Your task to perform on an android device: all mails in gmail Image 0: 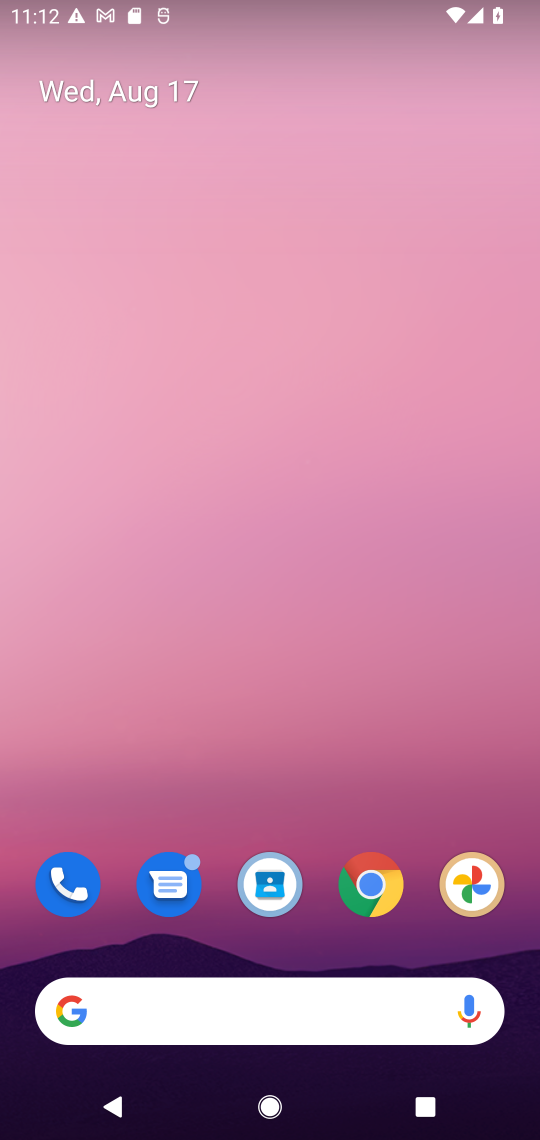
Step 0: press home button
Your task to perform on an android device: all mails in gmail Image 1: 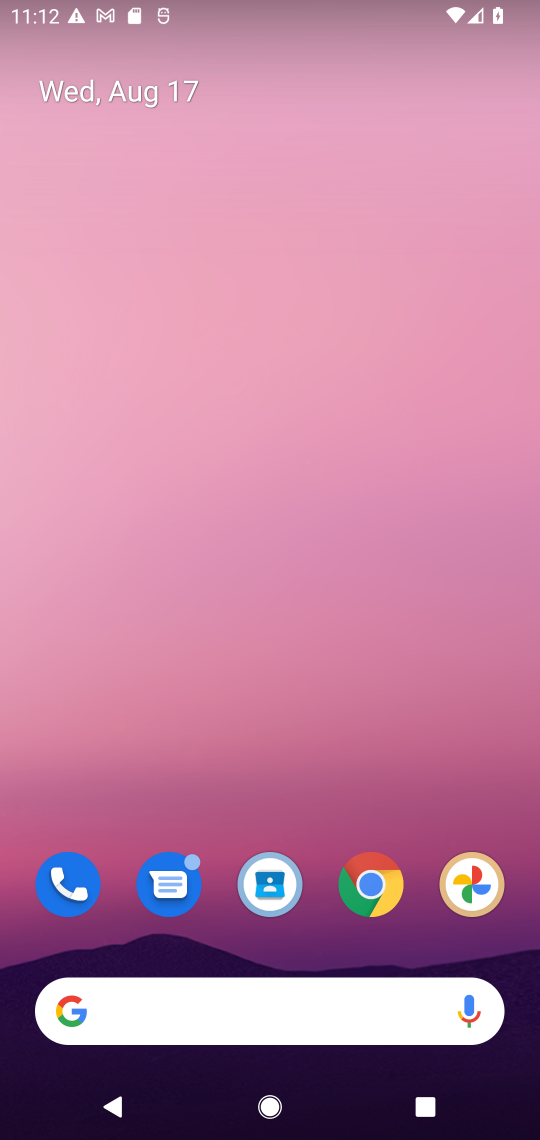
Step 1: drag from (362, 951) to (297, 5)
Your task to perform on an android device: all mails in gmail Image 2: 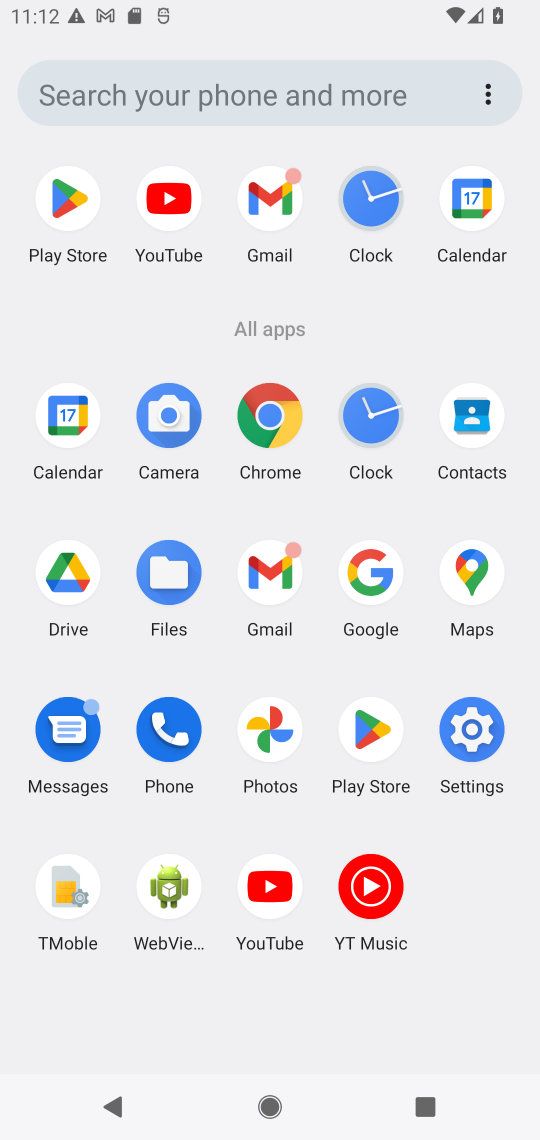
Step 2: click (269, 208)
Your task to perform on an android device: all mails in gmail Image 3: 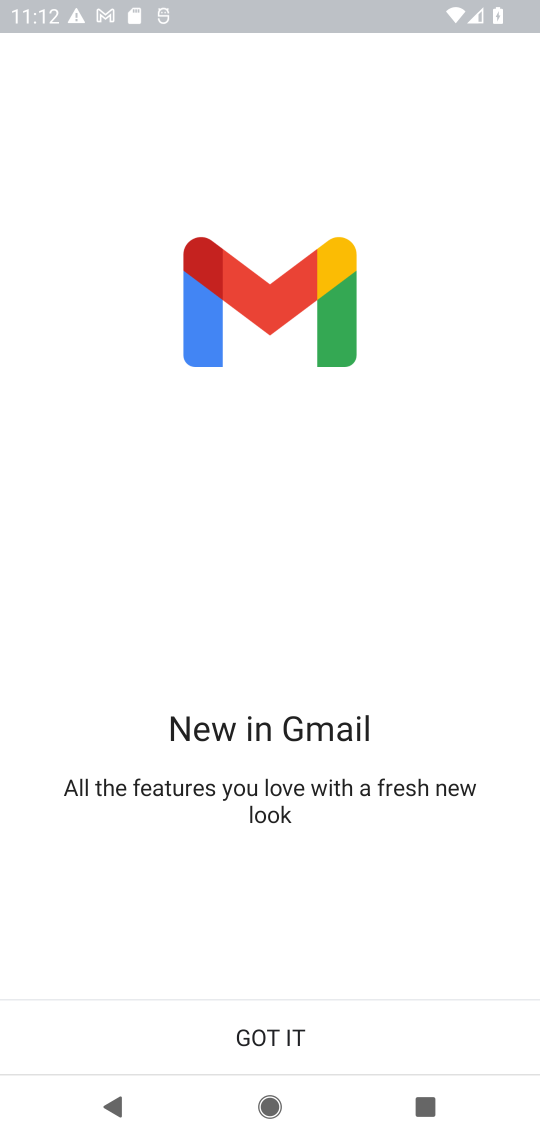
Step 3: click (253, 1043)
Your task to perform on an android device: all mails in gmail Image 4: 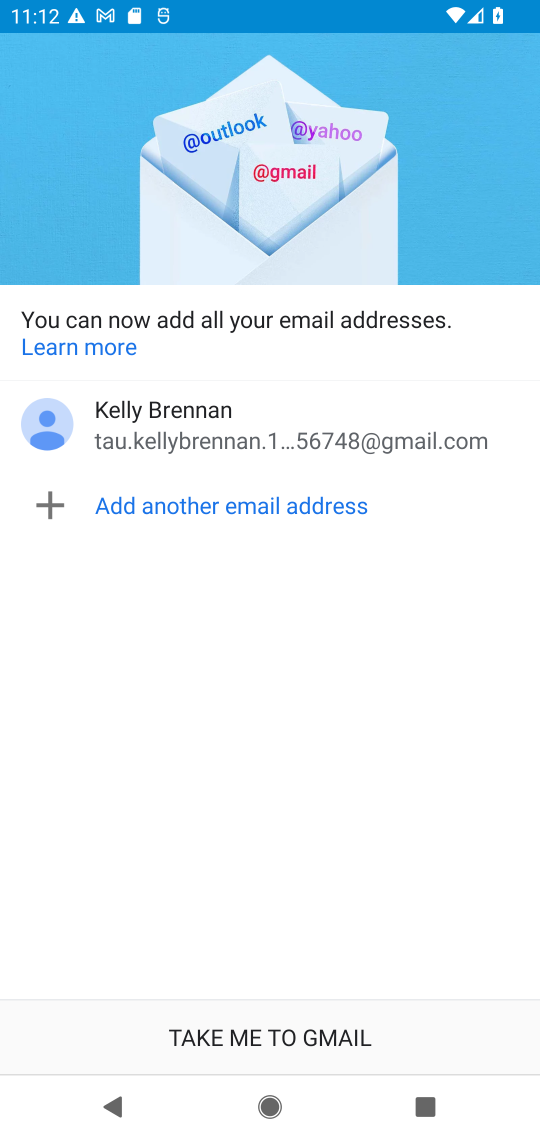
Step 4: click (277, 1045)
Your task to perform on an android device: all mails in gmail Image 5: 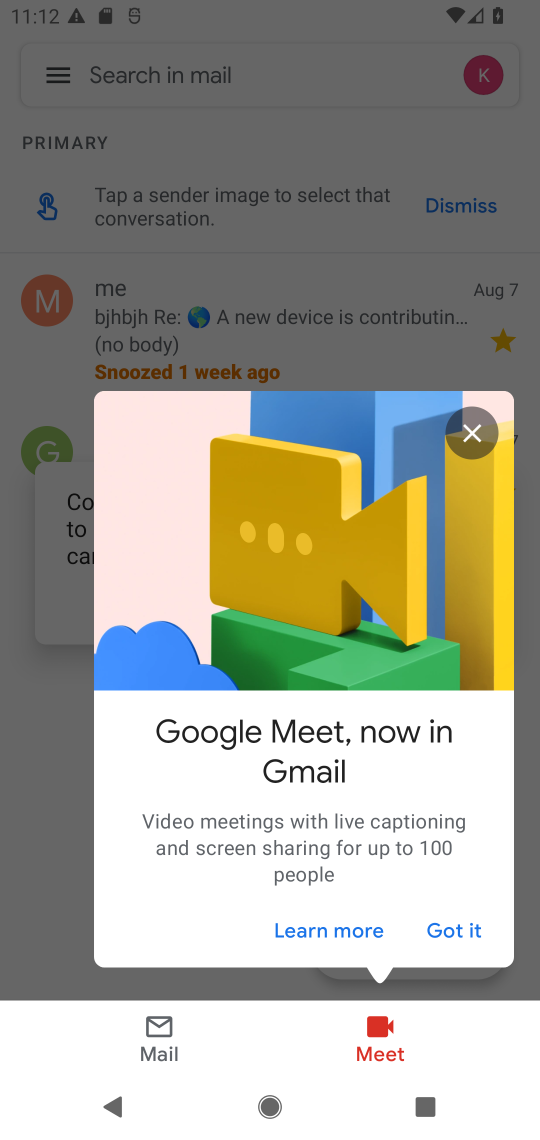
Step 5: click (470, 429)
Your task to perform on an android device: all mails in gmail Image 6: 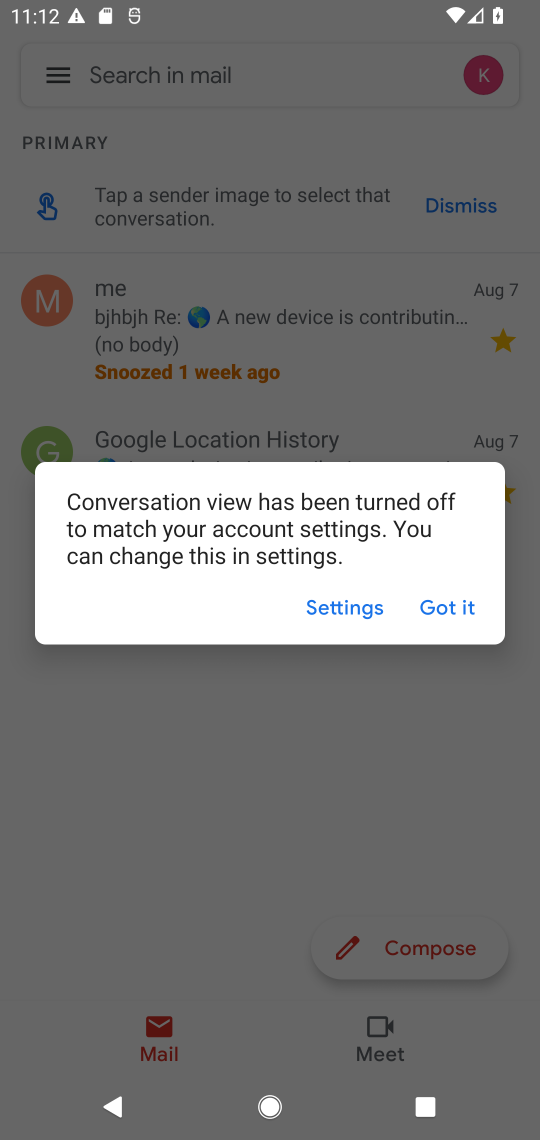
Step 6: click (447, 629)
Your task to perform on an android device: all mails in gmail Image 7: 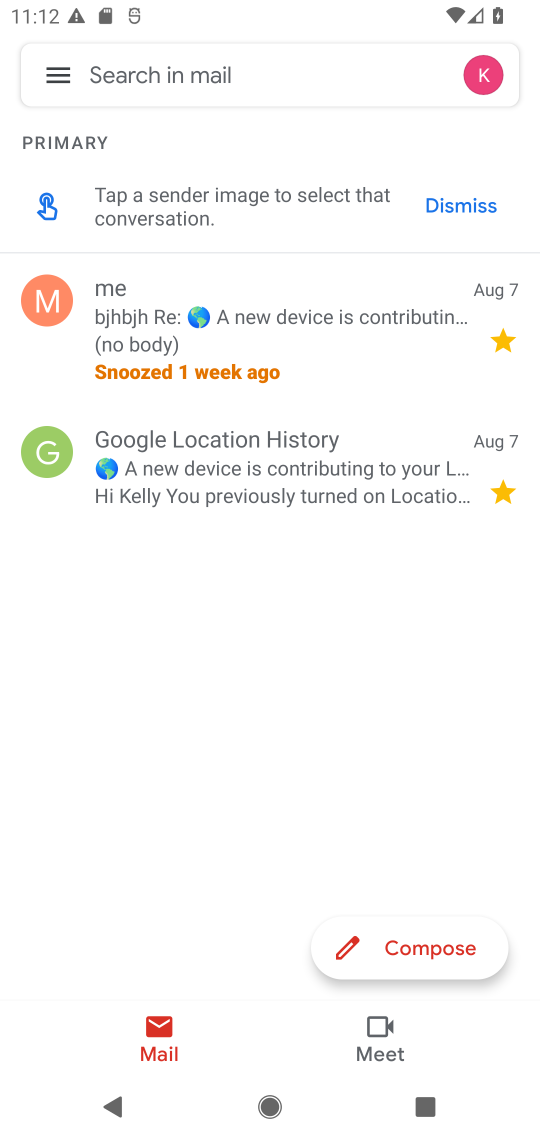
Step 7: click (69, 87)
Your task to perform on an android device: all mails in gmail Image 8: 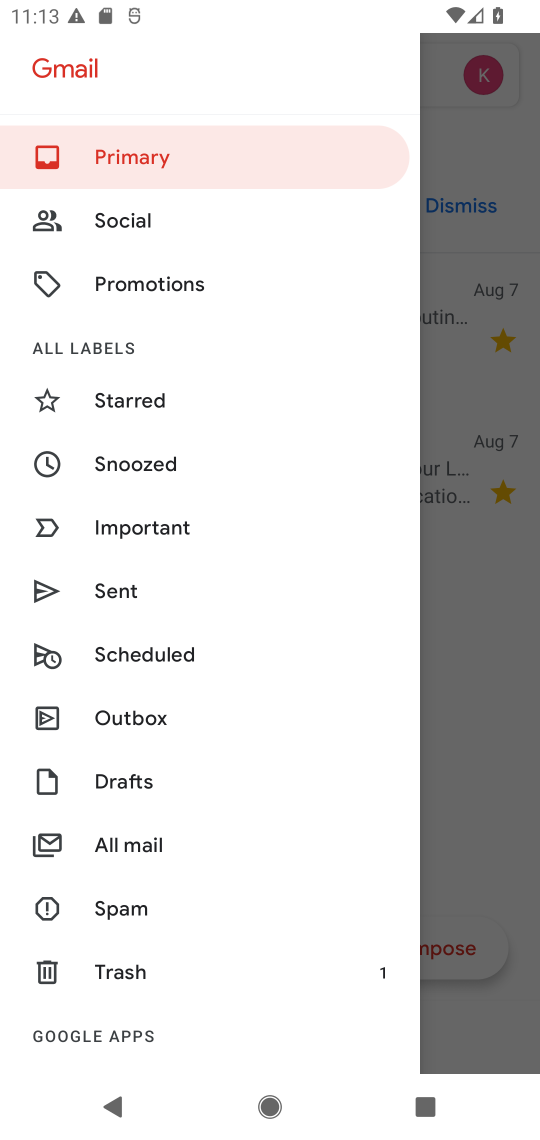
Step 8: click (116, 854)
Your task to perform on an android device: all mails in gmail Image 9: 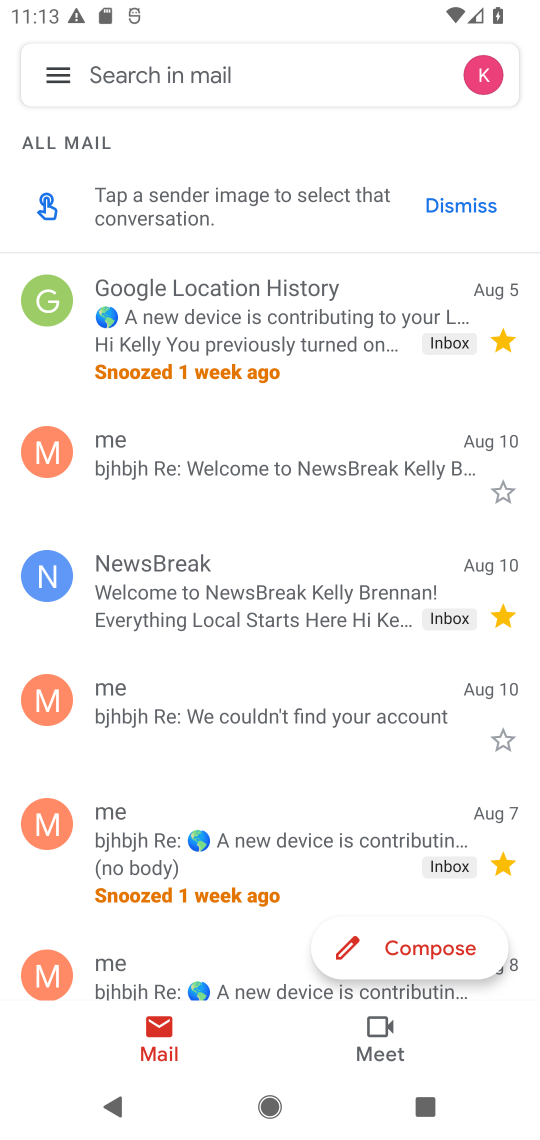
Step 9: task complete